Your task to perform on an android device: When is my next appointment? Image 0: 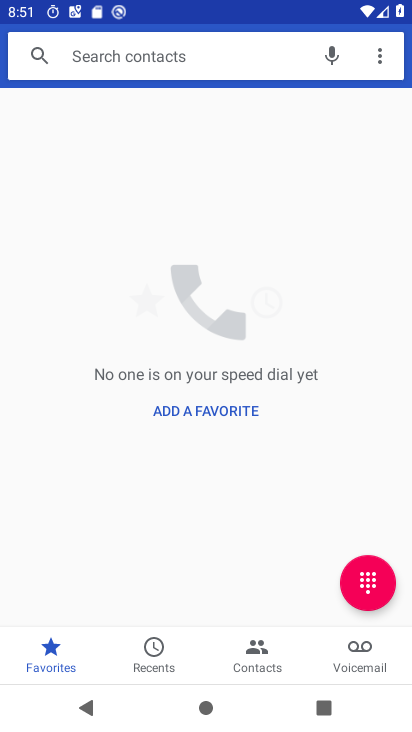
Step 0: press home button
Your task to perform on an android device: When is my next appointment? Image 1: 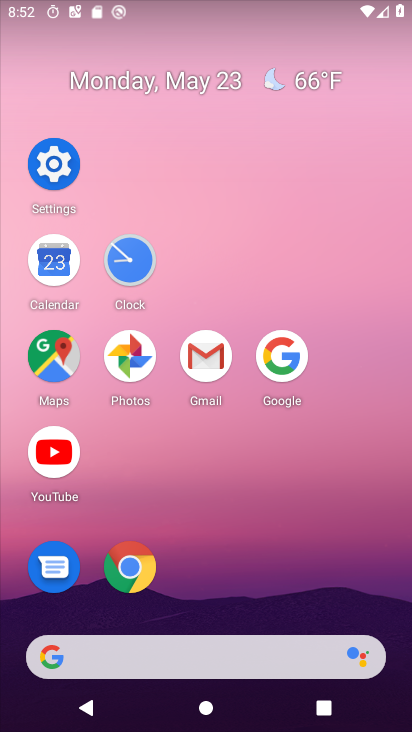
Step 1: click (47, 267)
Your task to perform on an android device: When is my next appointment? Image 2: 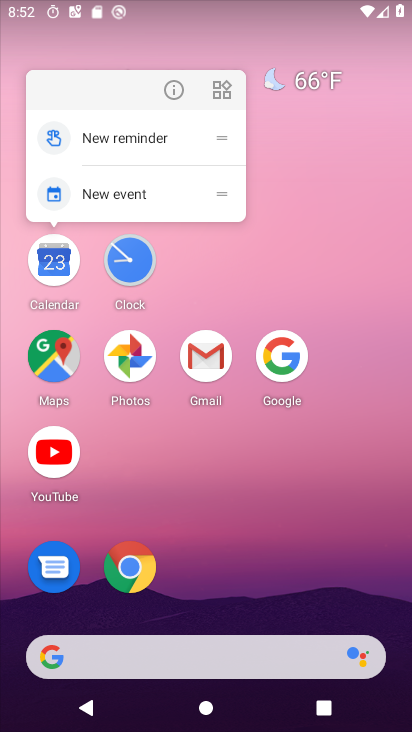
Step 2: click (61, 268)
Your task to perform on an android device: When is my next appointment? Image 3: 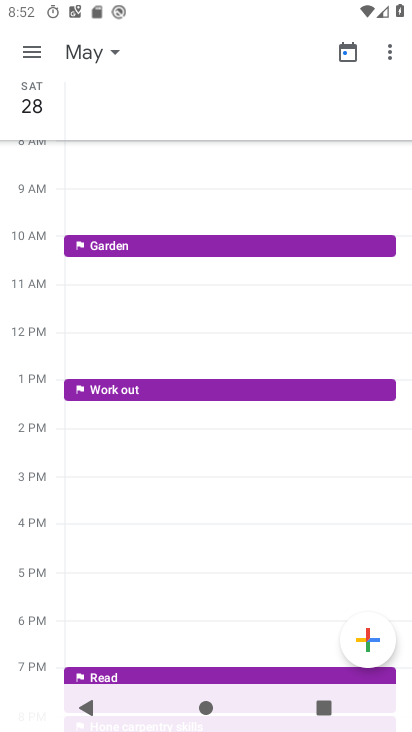
Step 3: click (38, 47)
Your task to perform on an android device: When is my next appointment? Image 4: 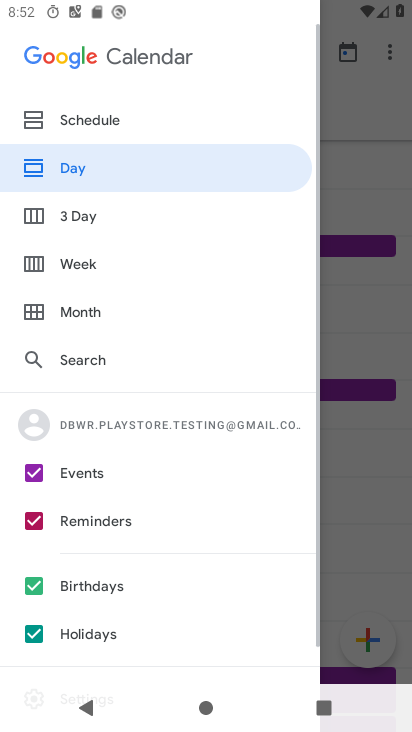
Step 4: click (106, 262)
Your task to perform on an android device: When is my next appointment? Image 5: 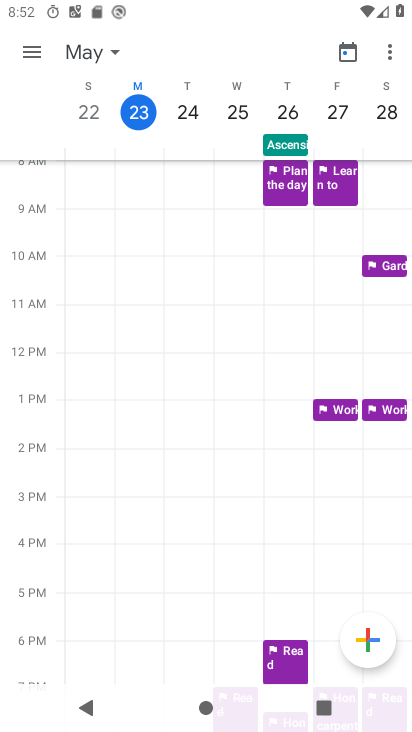
Step 5: click (241, 116)
Your task to perform on an android device: When is my next appointment? Image 6: 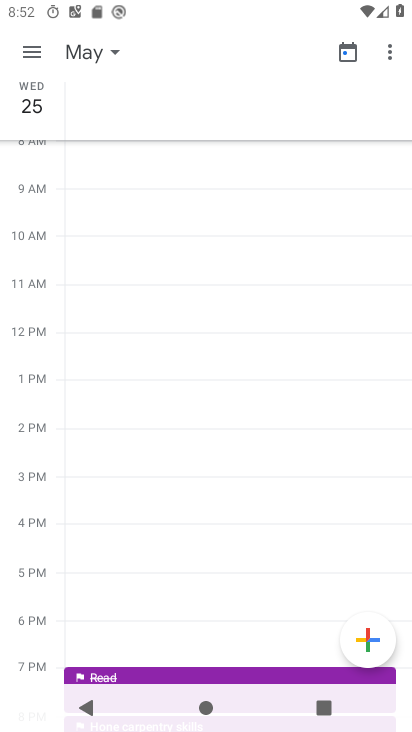
Step 6: task complete